Your task to perform on an android device: show emergency info Image 0: 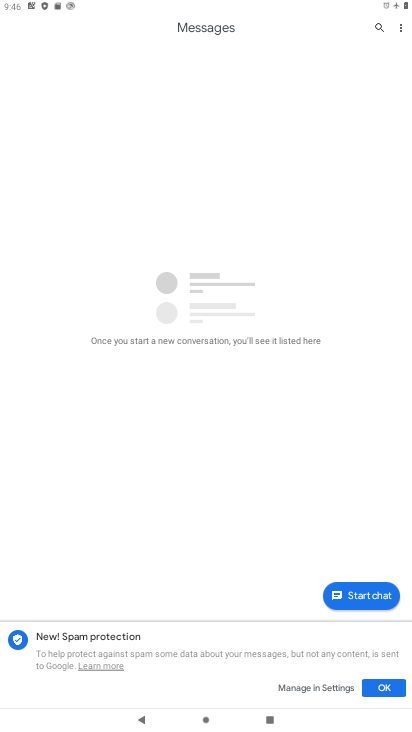
Step 0: press home button
Your task to perform on an android device: show emergency info Image 1: 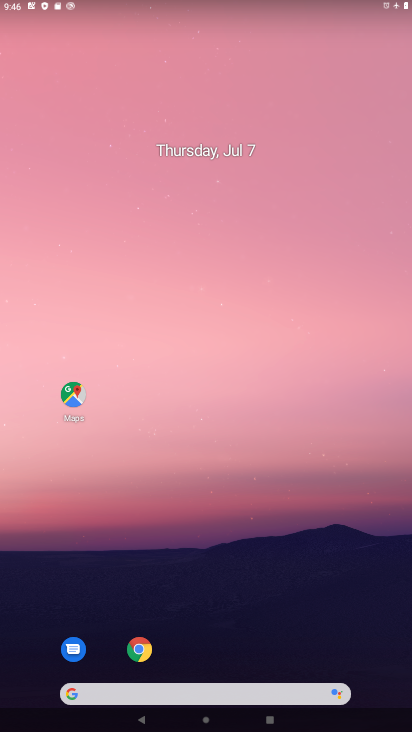
Step 1: drag from (235, 721) to (221, 258)
Your task to perform on an android device: show emergency info Image 2: 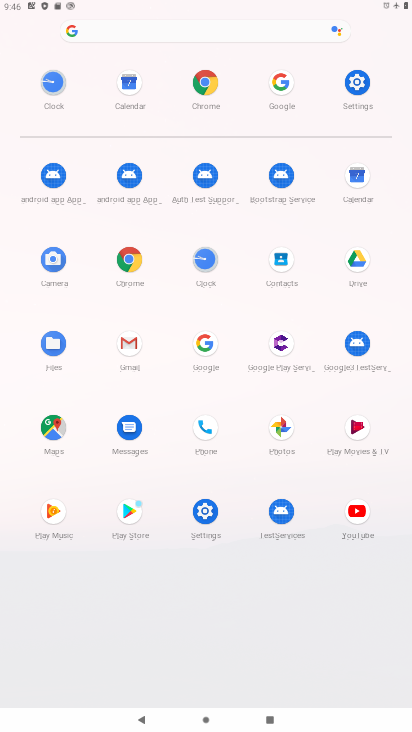
Step 2: click (360, 78)
Your task to perform on an android device: show emergency info Image 3: 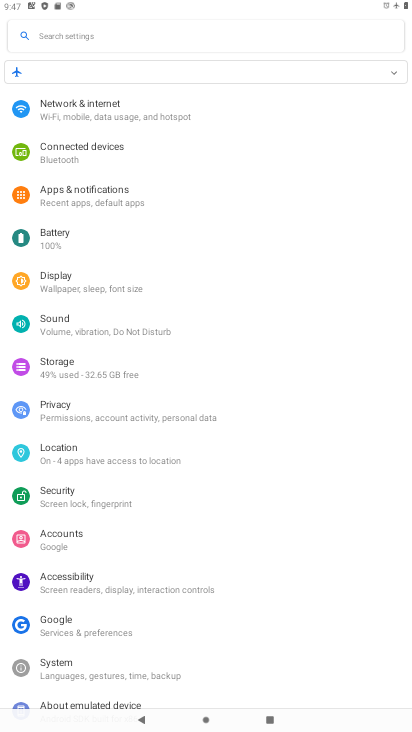
Step 3: click (102, 701)
Your task to perform on an android device: show emergency info Image 4: 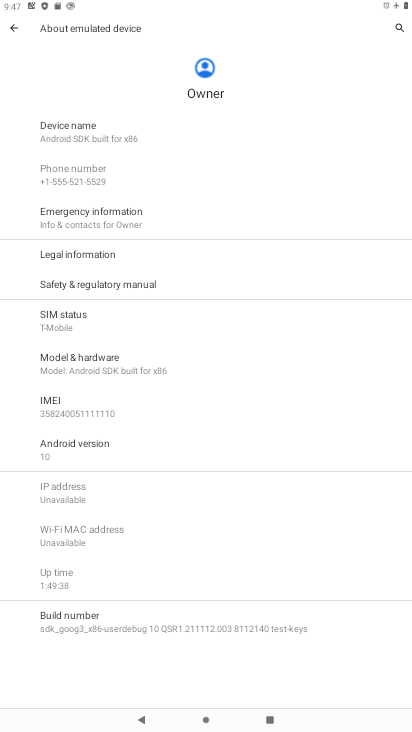
Step 4: click (96, 212)
Your task to perform on an android device: show emergency info Image 5: 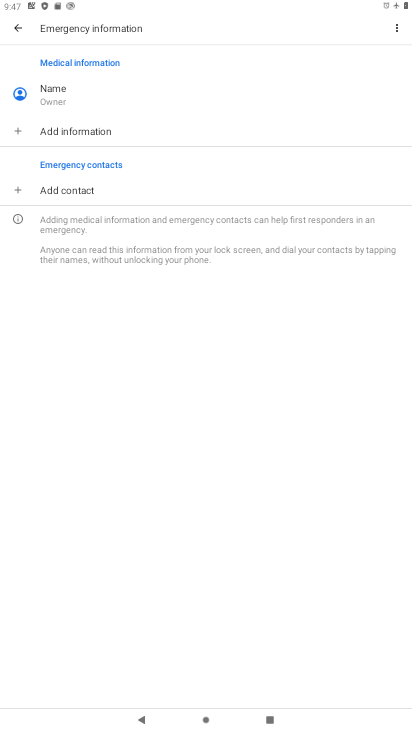
Step 5: task complete